Your task to perform on an android device: Open Amazon Image 0: 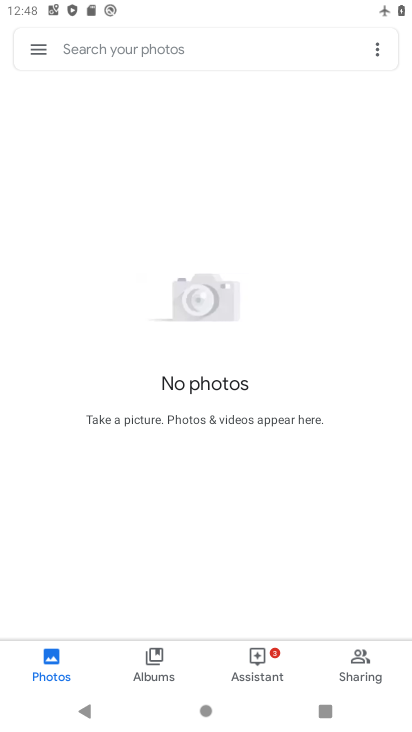
Step 0: press home button
Your task to perform on an android device: Open Amazon Image 1: 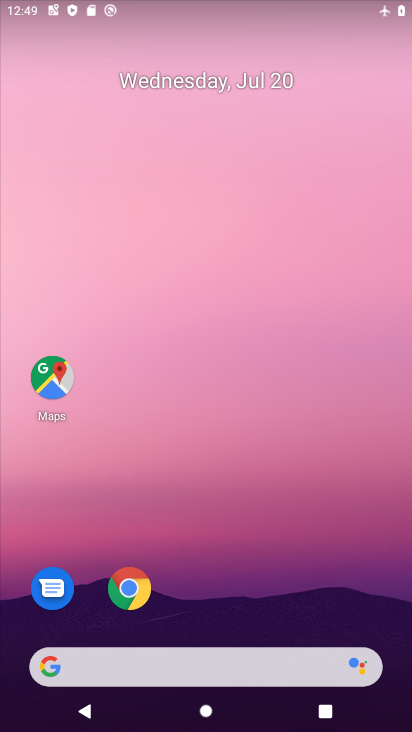
Step 1: click (138, 587)
Your task to perform on an android device: Open Amazon Image 2: 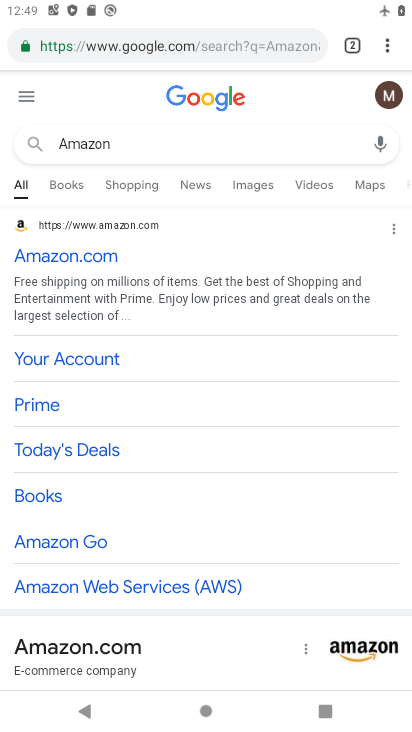
Step 2: click (224, 44)
Your task to perform on an android device: Open Amazon Image 3: 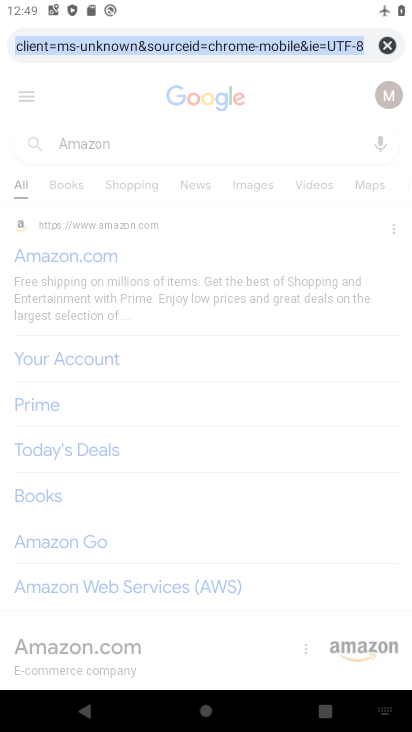
Step 3: click (386, 39)
Your task to perform on an android device: Open Amazon Image 4: 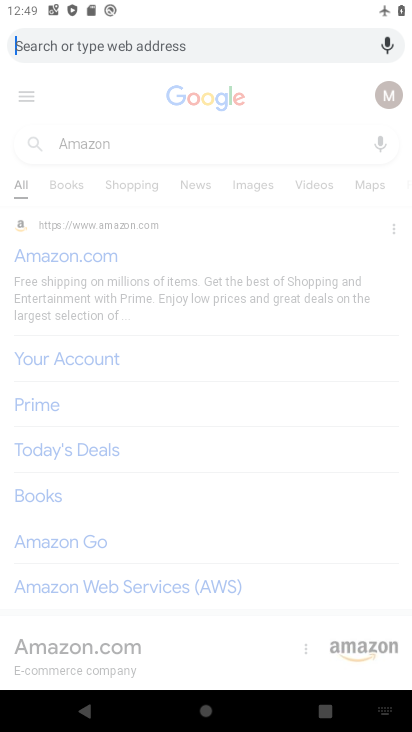
Step 4: type "Amazon"
Your task to perform on an android device: Open Amazon Image 5: 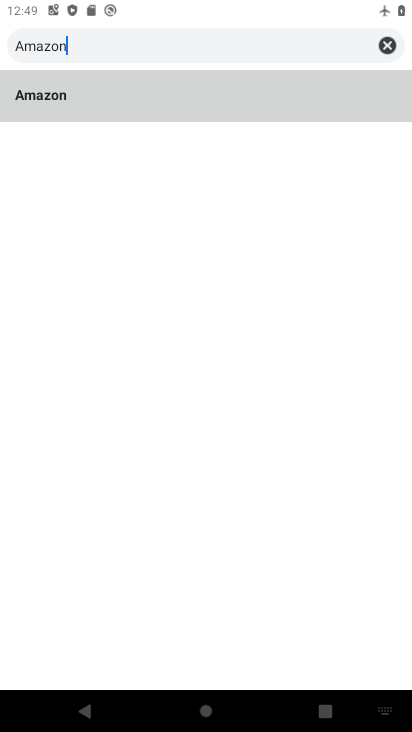
Step 5: click (157, 100)
Your task to perform on an android device: Open Amazon Image 6: 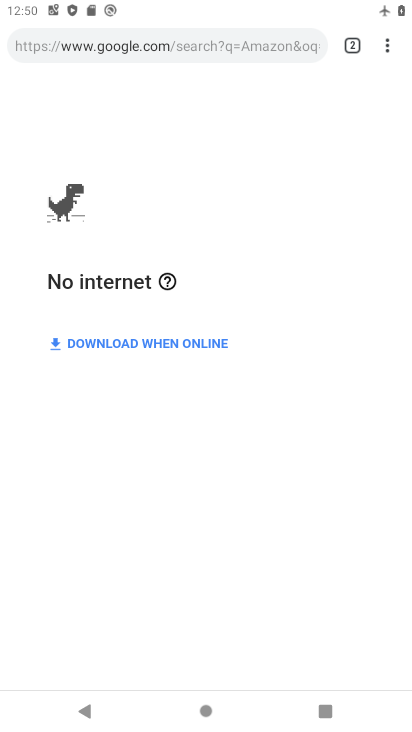
Step 6: task complete